Your task to perform on an android device: Do I have any events today? Image 0: 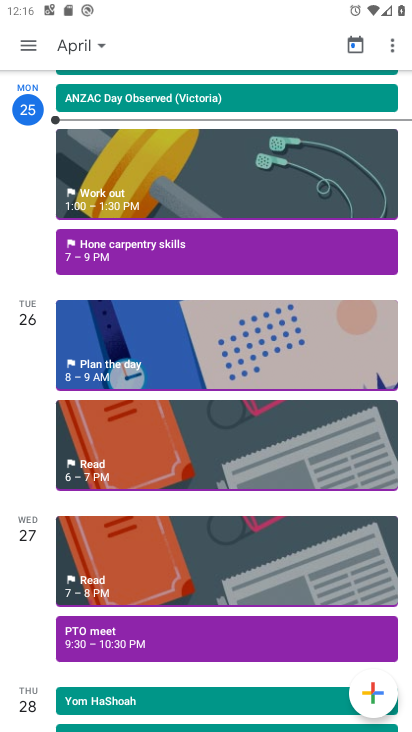
Step 0: click (36, 46)
Your task to perform on an android device: Do I have any events today? Image 1: 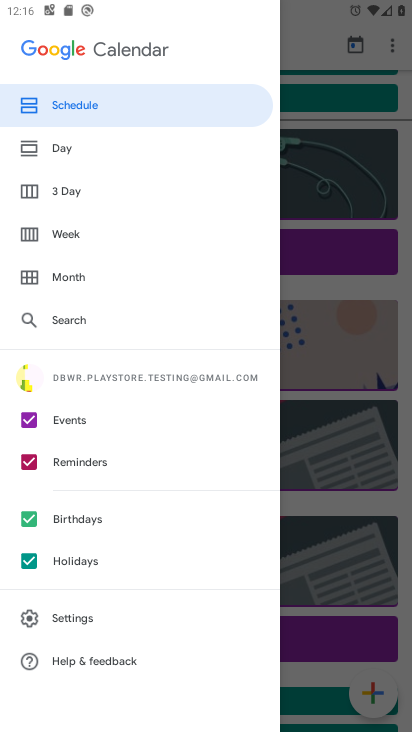
Step 1: drag from (114, 613) to (134, 267)
Your task to perform on an android device: Do I have any events today? Image 2: 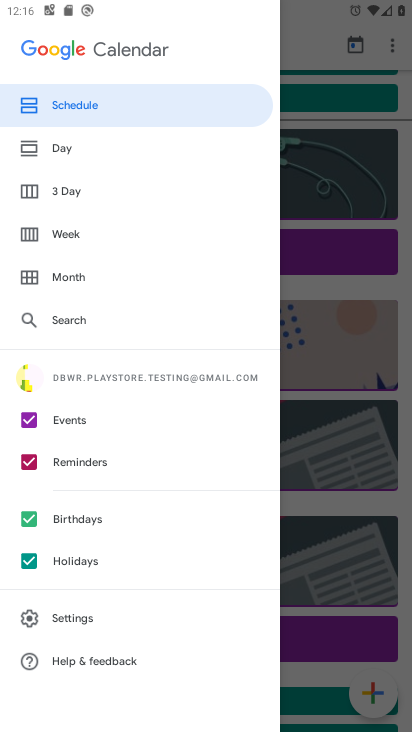
Step 2: click (60, 144)
Your task to perform on an android device: Do I have any events today? Image 3: 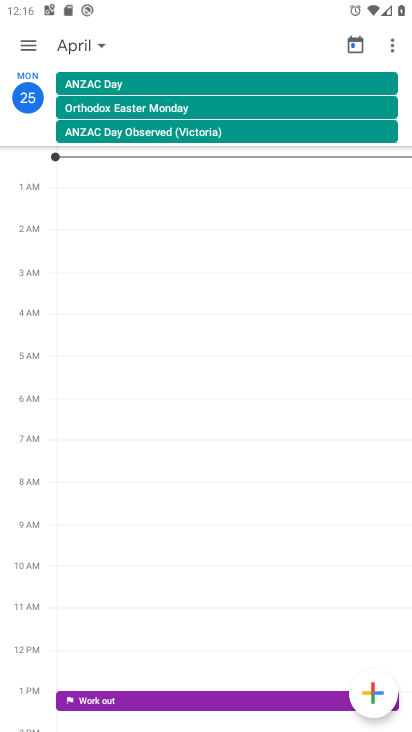
Step 3: click (35, 42)
Your task to perform on an android device: Do I have any events today? Image 4: 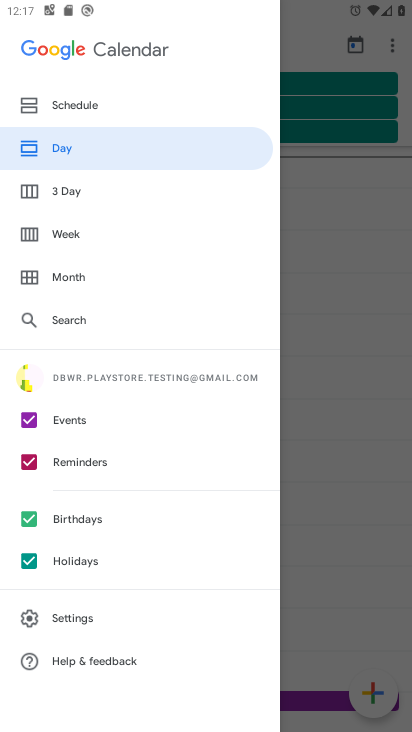
Step 4: click (39, 462)
Your task to perform on an android device: Do I have any events today? Image 5: 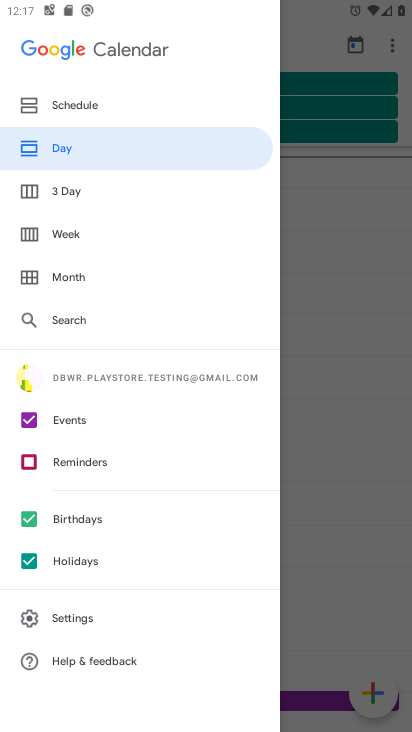
Step 5: click (42, 521)
Your task to perform on an android device: Do I have any events today? Image 6: 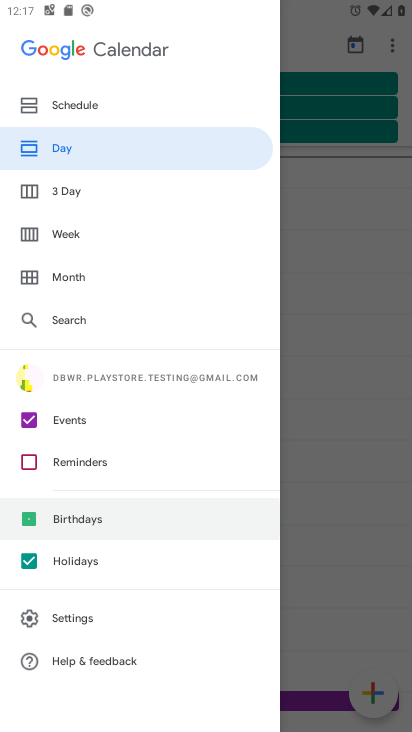
Step 6: click (44, 560)
Your task to perform on an android device: Do I have any events today? Image 7: 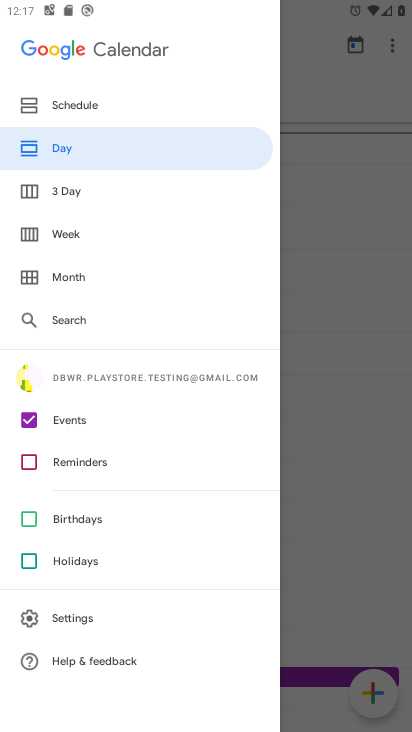
Step 7: click (336, 178)
Your task to perform on an android device: Do I have any events today? Image 8: 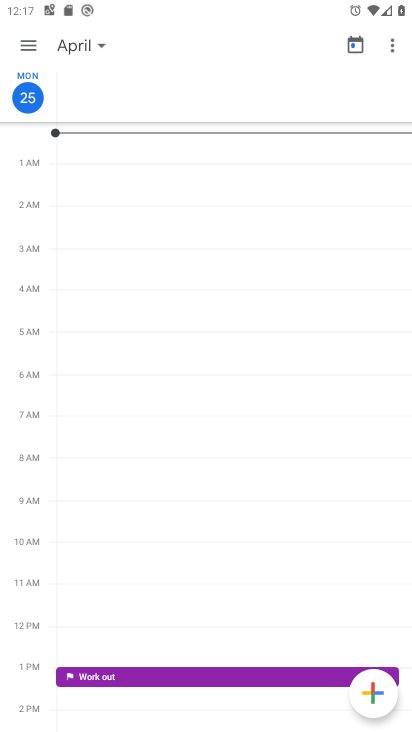
Step 8: task complete